Your task to perform on an android device: Open display settings Image 0: 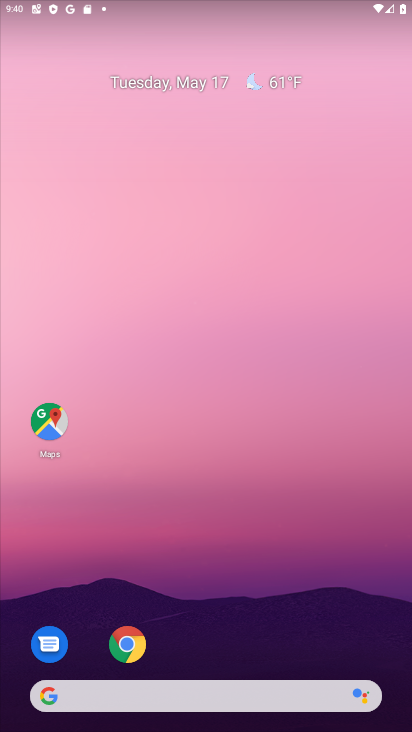
Step 0: drag from (233, 641) to (301, 59)
Your task to perform on an android device: Open display settings Image 1: 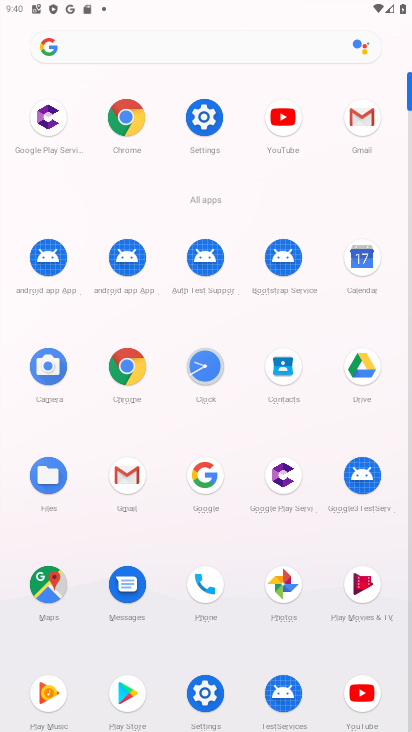
Step 1: click (206, 140)
Your task to perform on an android device: Open display settings Image 2: 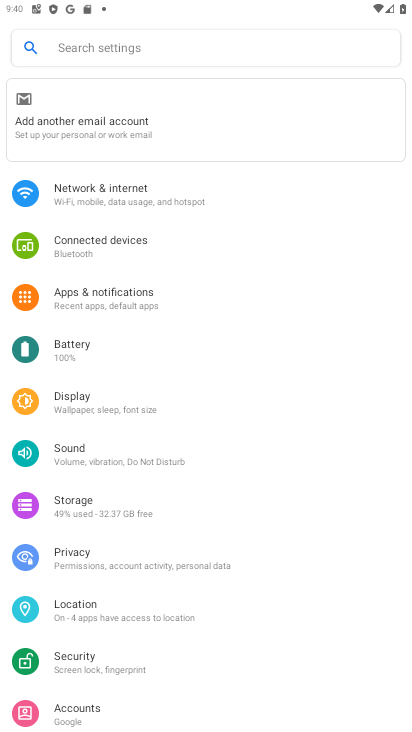
Step 2: click (160, 423)
Your task to perform on an android device: Open display settings Image 3: 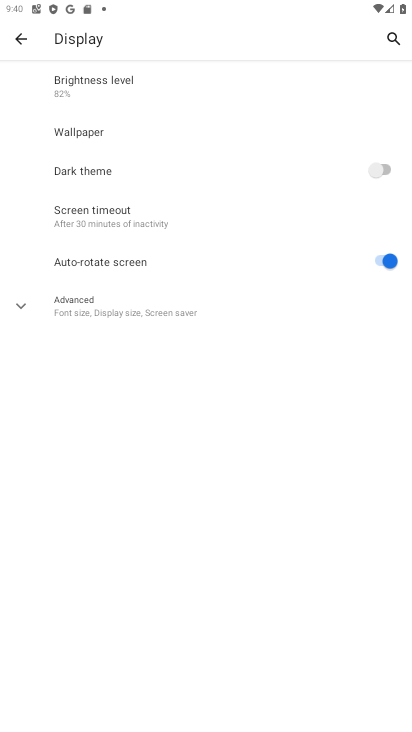
Step 3: task complete